Your task to perform on an android device: find snoozed emails in the gmail app Image 0: 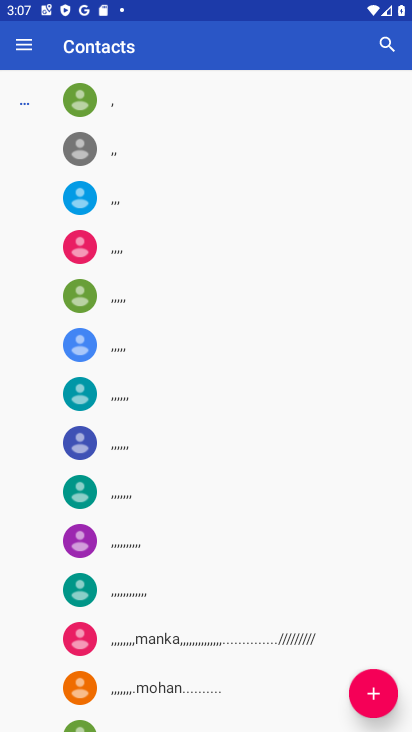
Step 0: press back button
Your task to perform on an android device: find snoozed emails in the gmail app Image 1: 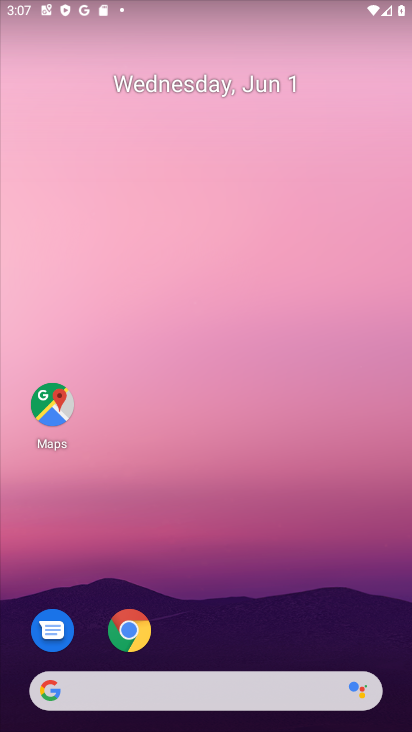
Step 1: drag from (179, 662) to (271, 160)
Your task to perform on an android device: find snoozed emails in the gmail app Image 2: 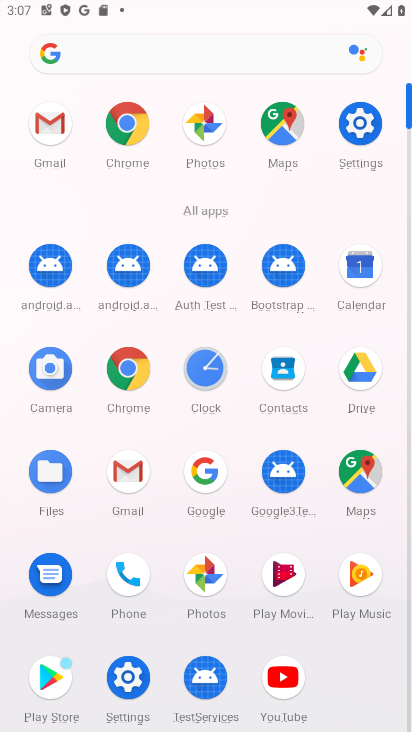
Step 2: click (50, 117)
Your task to perform on an android device: find snoozed emails in the gmail app Image 3: 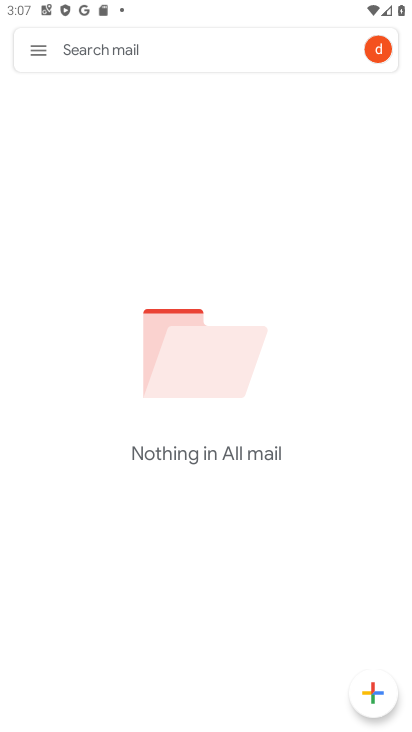
Step 3: click (20, 44)
Your task to perform on an android device: find snoozed emails in the gmail app Image 4: 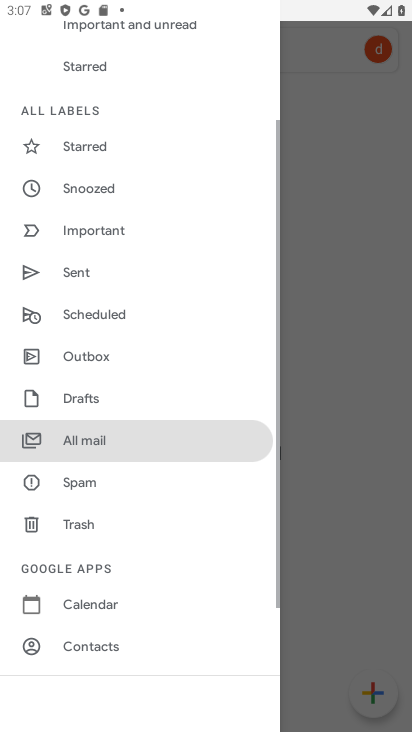
Step 4: click (73, 185)
Your task to perform on an android device: find snoozed emails in the gmail app Image 5: 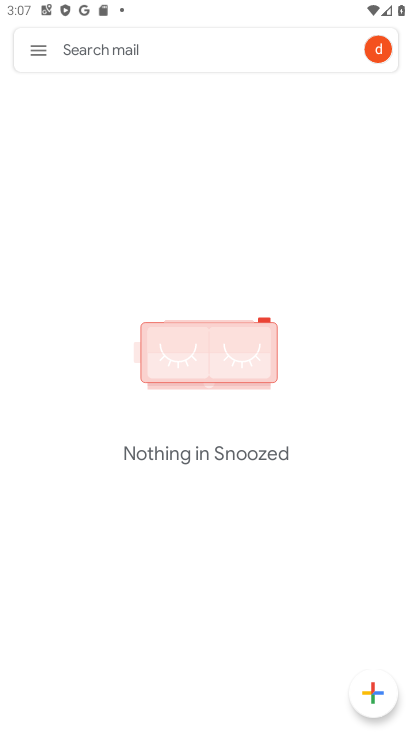
Step 5: task complete